Your task to perform on an android device: Open Chrome and go to the settings page Image 0: 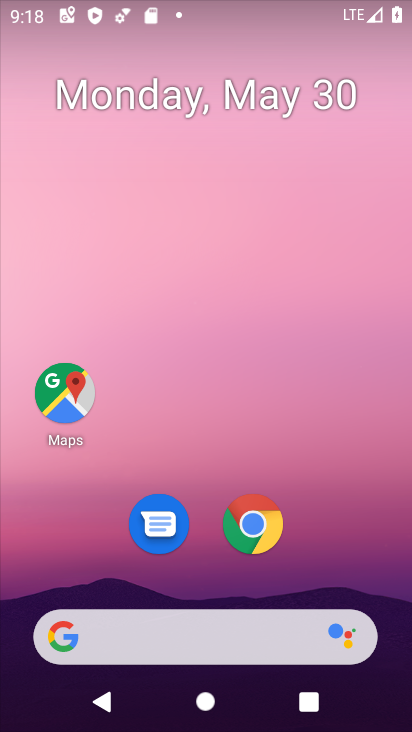
Step 0: click (264, 519)
Your task to perform on an android device: Open Chrome and go to the settings page Image 1: 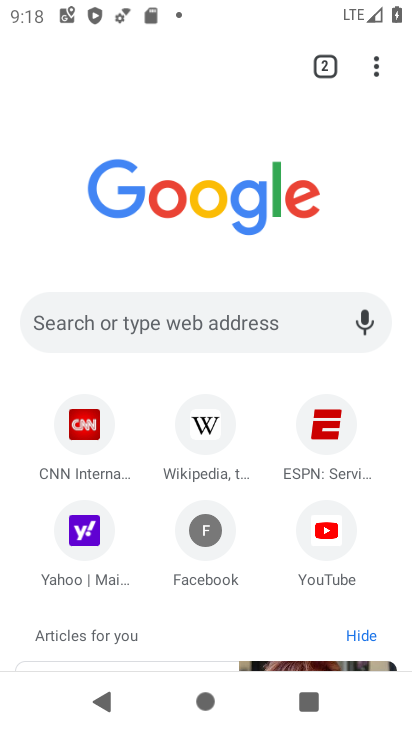
Step 1: click (373, 68)
Your task to perform on an android device: Open Chrome and go to the settings page Image 2: 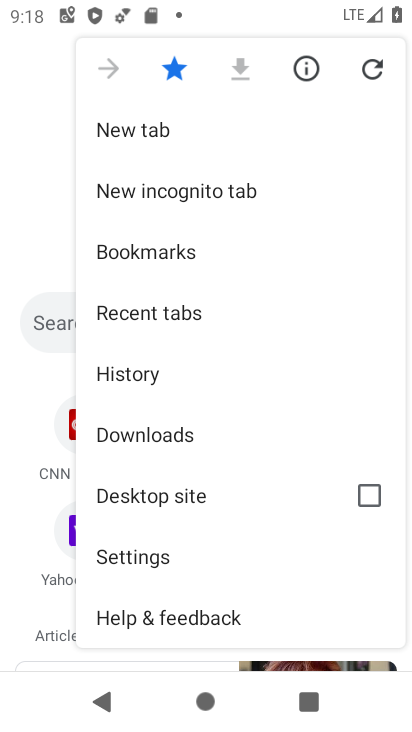
Step 2: click (162, 556)
Your task to perform on an android device: Open Chrome and go to the settings page Image 3: 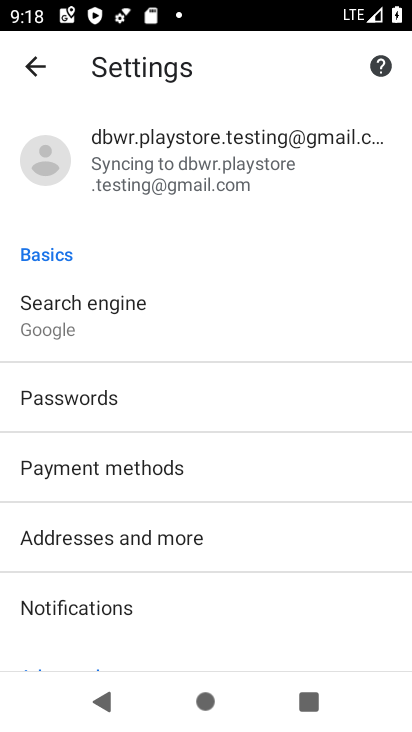
Step 3: task complete